Your task to perform on an android device: change keyboard looks Image 0: 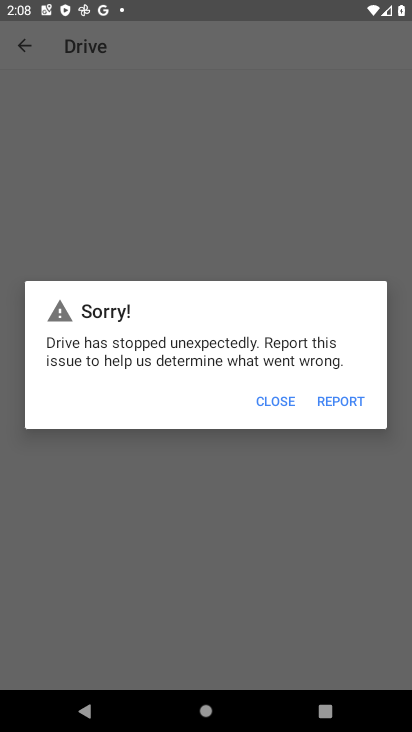
Step 0: press home button
Your task to perform on an android device: change keyboard looks Image 1: 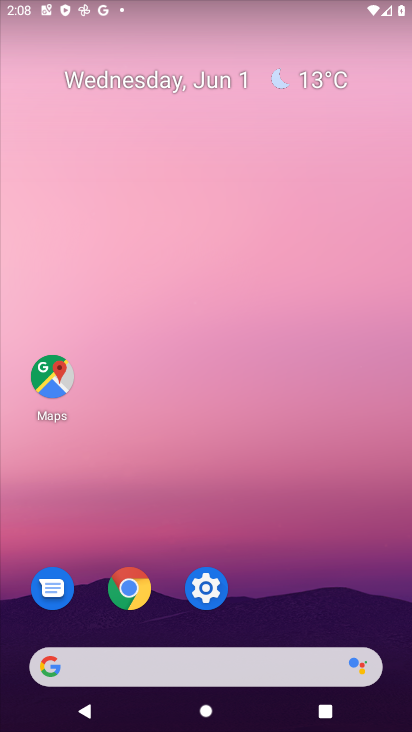
Step 1: click (203, 578)
Your task to perform on an android device: change keyboard looks Image 2: 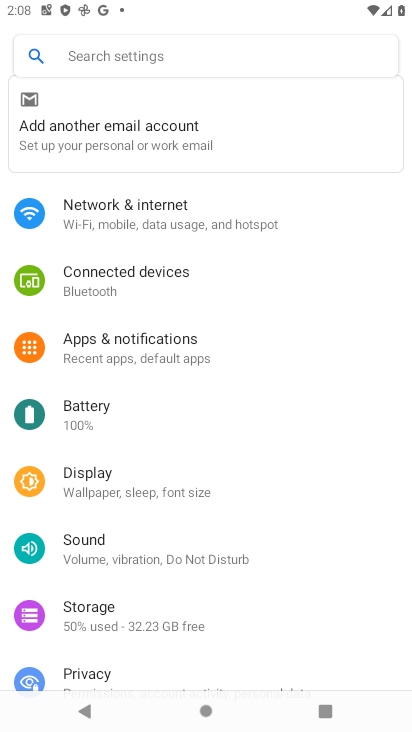
Step 2: click (142, 59)
Your task to perform on an android device: change keyboard looks Image 3: 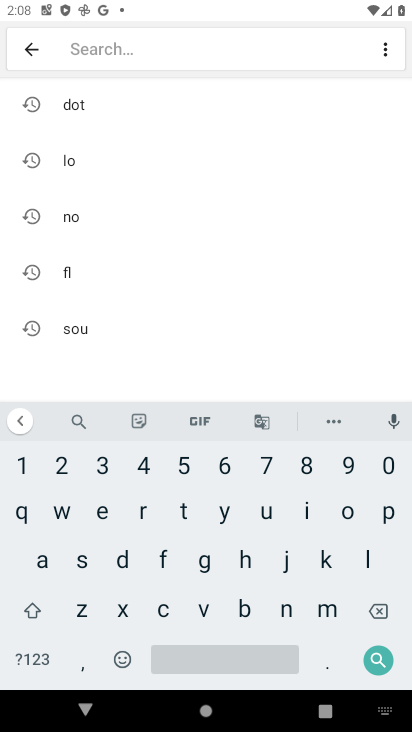
Step 3: click (323, 558)
Your task to perform on an android device: change keyboard looks Image 4: 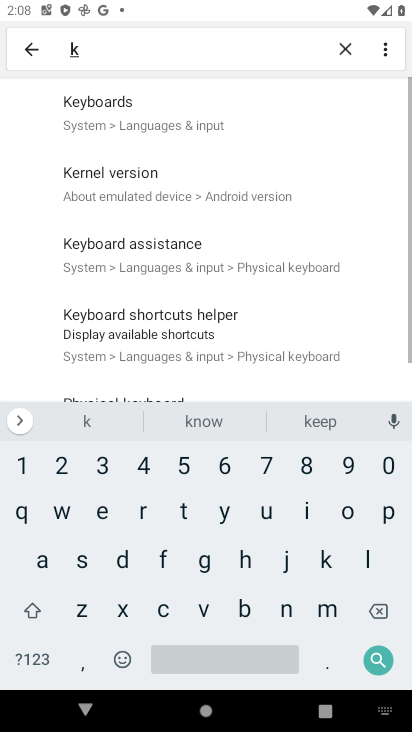
Step 4: click (98, 509)
Your task to perform on an android device: change keyboard looks Image 5: 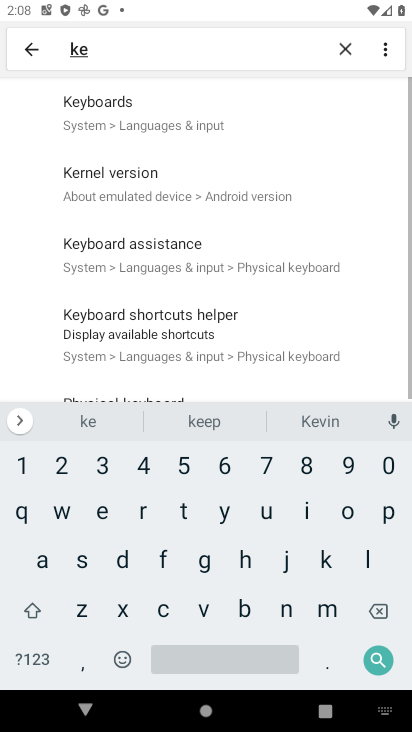
Step 5: click (123, 113)
Your task to perform on an android device: change keyboard looks Image 6: 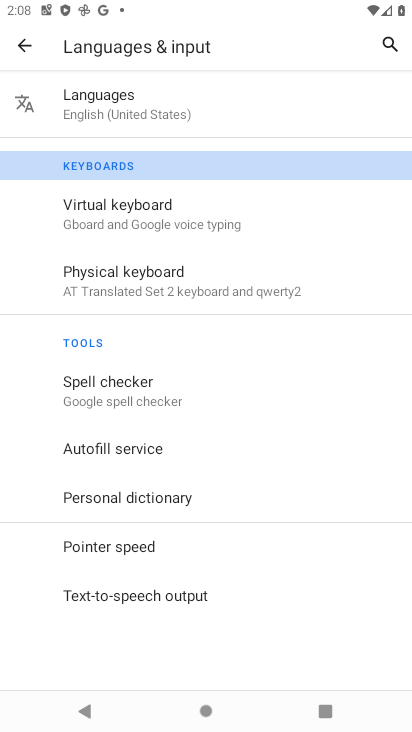
Step 6: click (102, 209)
Your task to perform on an android device: change keyboard looks Image 7: 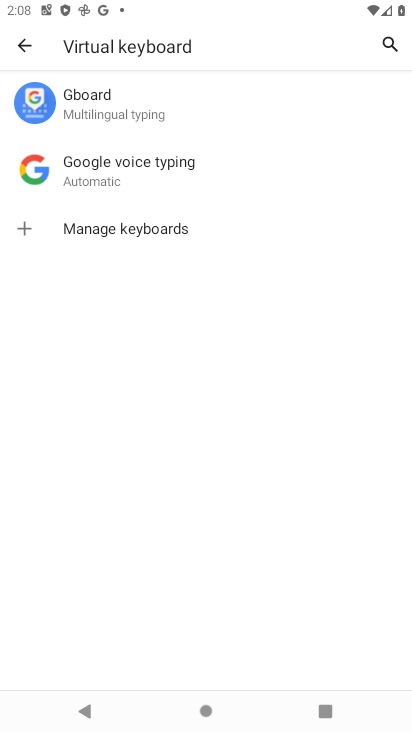
Step 7: click (113, 115)
Your task to perform on an android device: change keyboard looks Image 8: 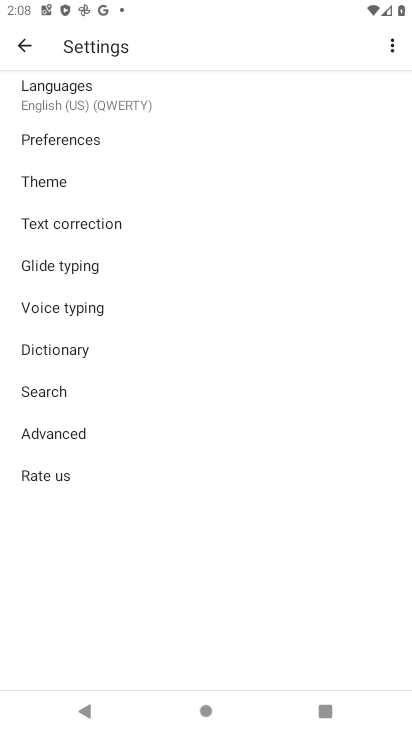
Step 8: click (61, 190)
Your task to perform on an android device: change keyboard looks Image 9: 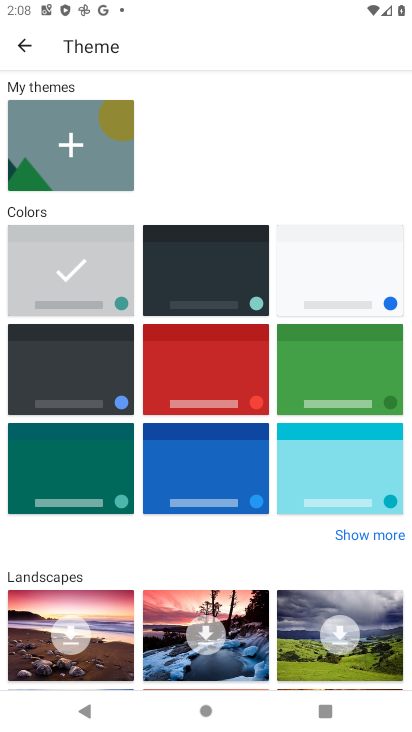
Step 9: click (190, 280)
Your task to perform on an android device: change keyboard looks Image 10: 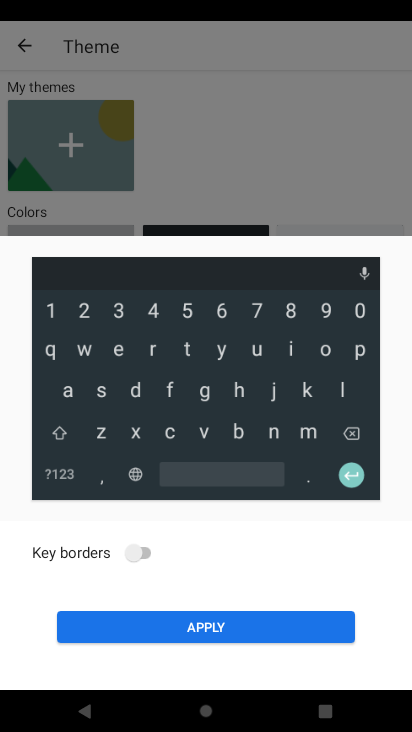
Step 10: click (148, 548)
Your task to perform on an android device: change keyboard looks Image 11: 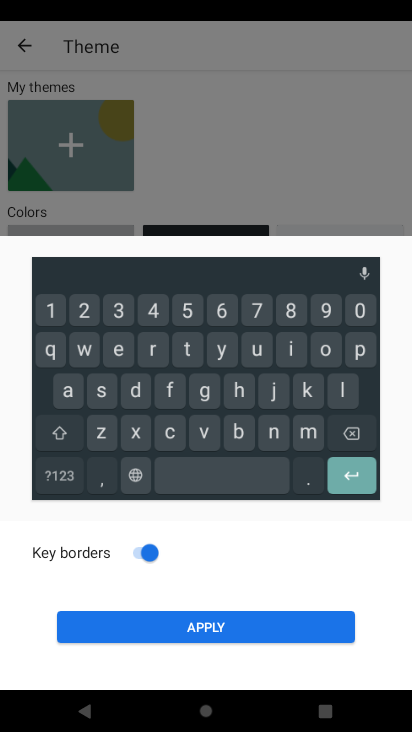
Step 11: click (169, 630)
Your task to perform on an android device: change keyboard looks Image 12: 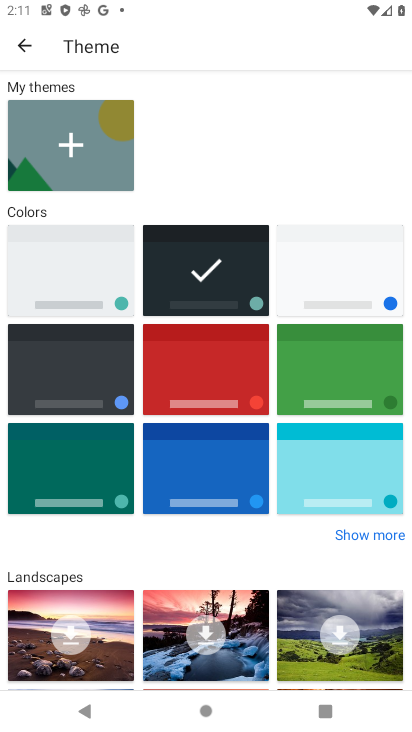
Step 12: task complete